Your task to perform on an android device: Go to Yahoo.com Image 0: 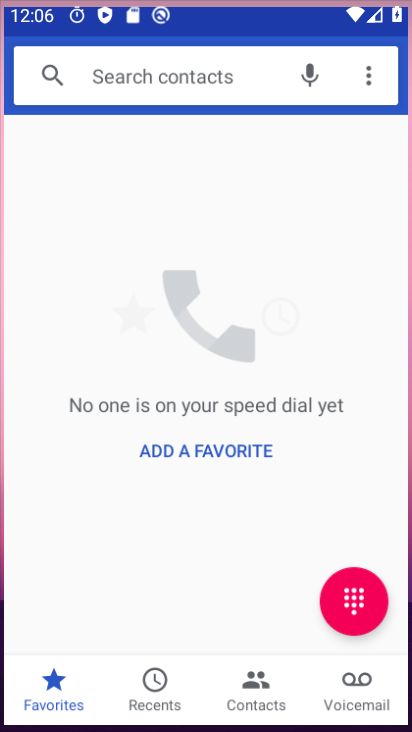
Step 0: press back button
Your task to perform on an android device: Go to Yahoo.com Image 1: 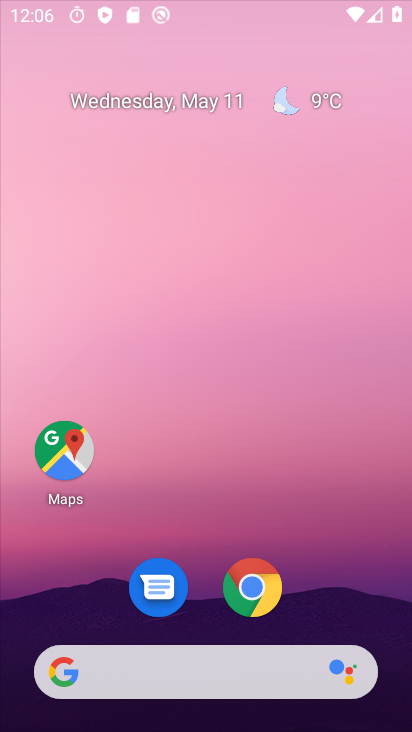
Step 1: press back button
Your task to perform on an android device: Go to Yahoo.com Image 2: 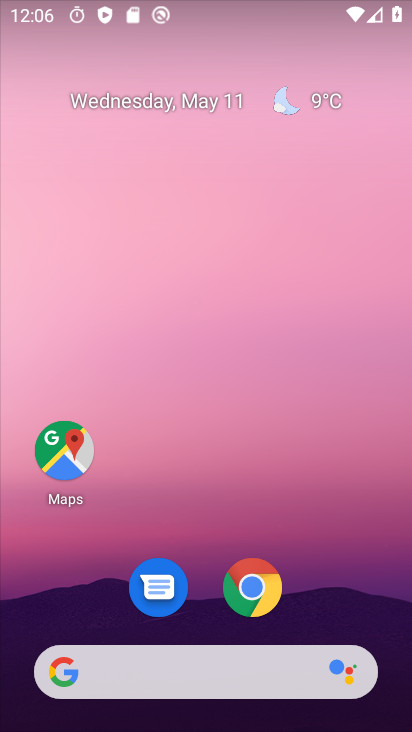
Step 2: drag from (344, 459) to (227, 90)
Your task to perform on an android device: Go to Yahoo.com Image 3: 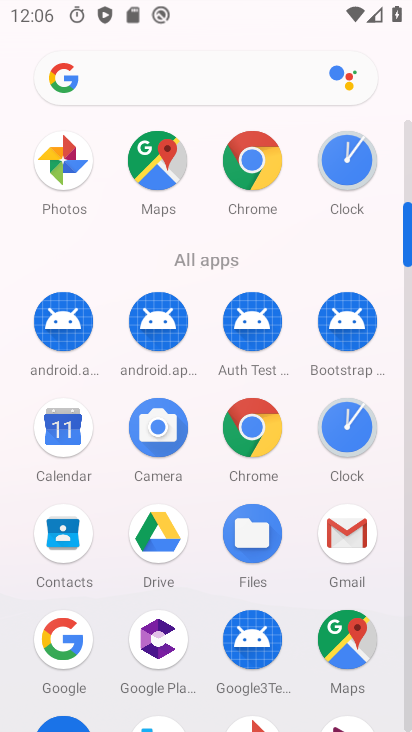
Step 3: click (236, 167)
Your task to perform on an android device: Go to Yahoo.com Image 4: 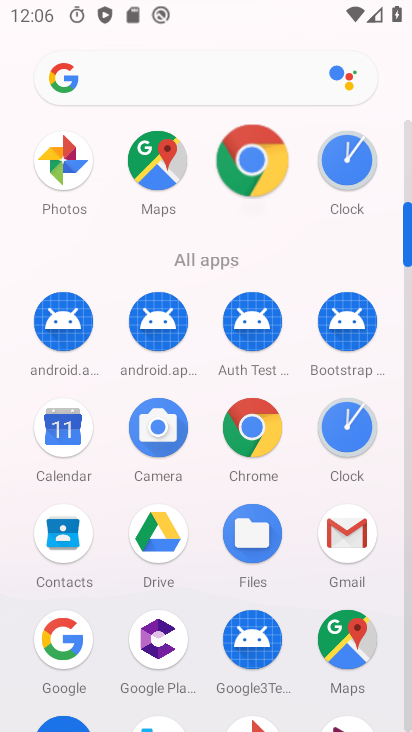
Step 4: click (247, 156)
Your task to perform on an android device: Go to Yahoo.com Image 5: 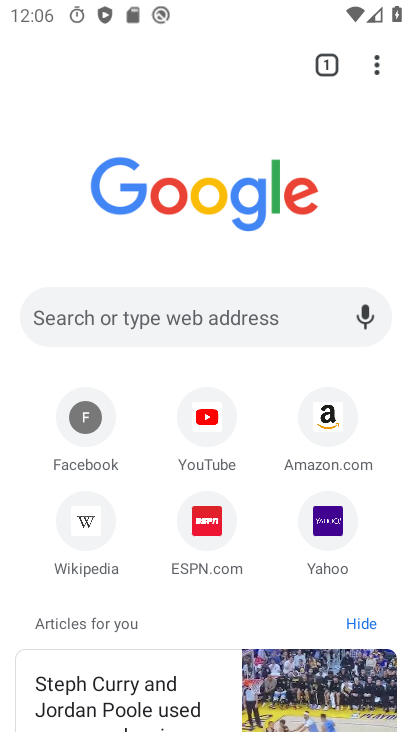
Step 5: click (93, 321)
Your task to perform on an android device: Go to Yahoo.com Image 6: 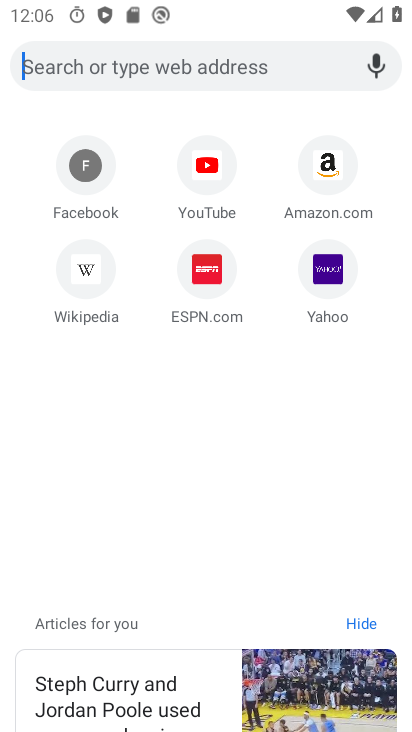
Step 6: click (99, 308)
Your task to perform on an android device: Go to Yahoo.com Image 7: 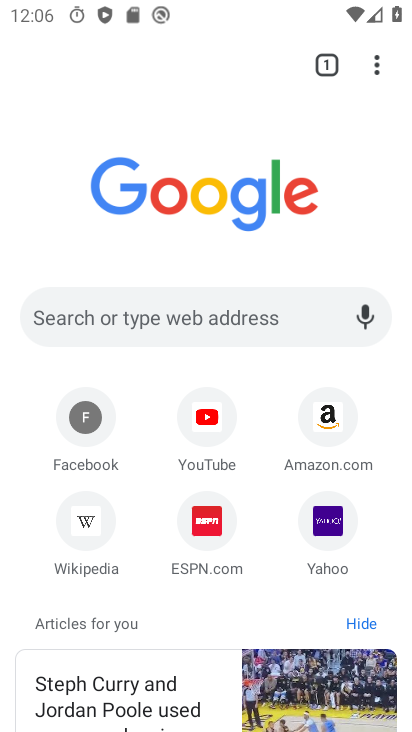
Step 7: click (329, 516)
Your task to perform on an android device: Go to Yahoo.com Image 8: 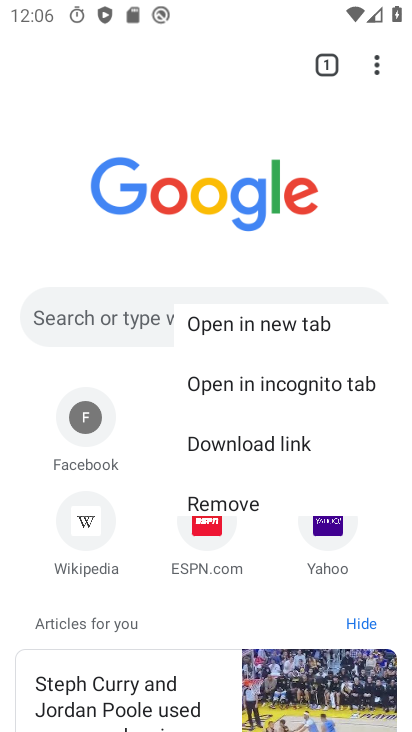
Step 8: click (324, 506)
Your task to perform on an android device: Go to Yahoo.com Image 9: 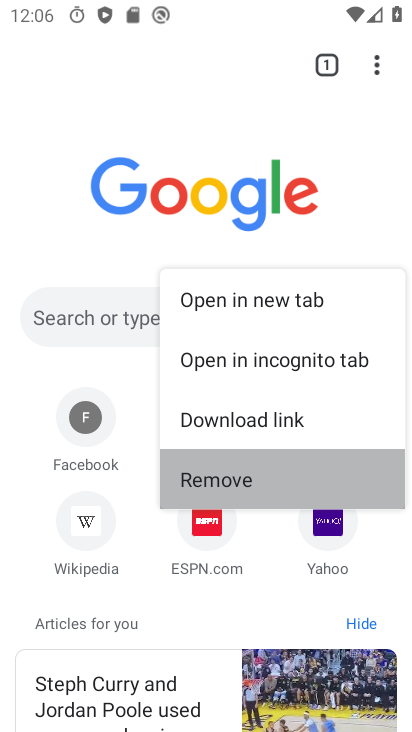
Step 9: click (331, 525)
Your task to perform on an android device: Go to Yahoo.com Image 10: 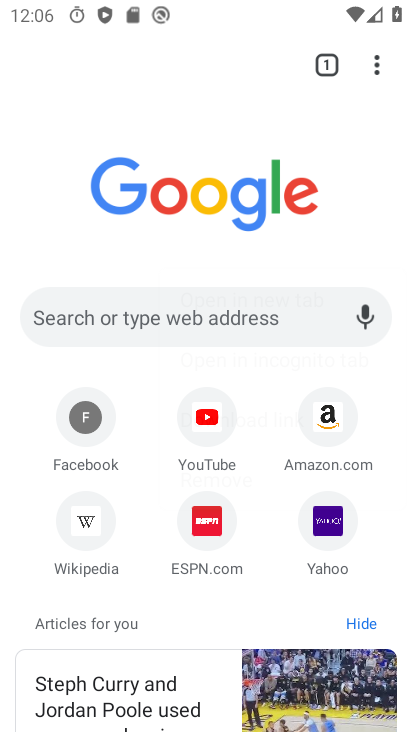
Step 10: click (329, 520)
Your task to perform on an android device: Go to Yahoo.com Image 11: 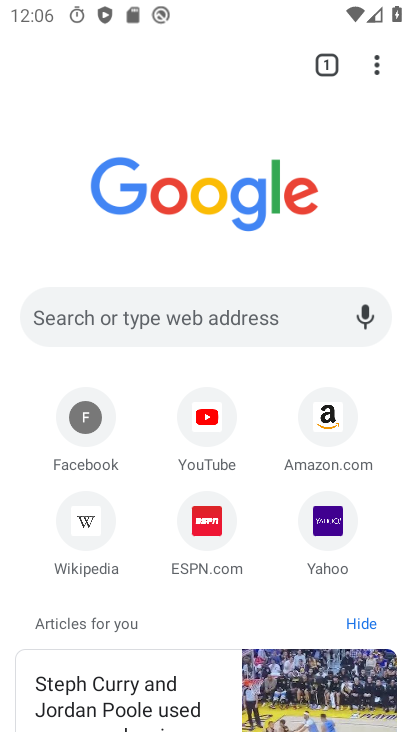
Step 11: click (328, 519)
Your task to perform on an android device: Go to Yahoo.com Image 12: 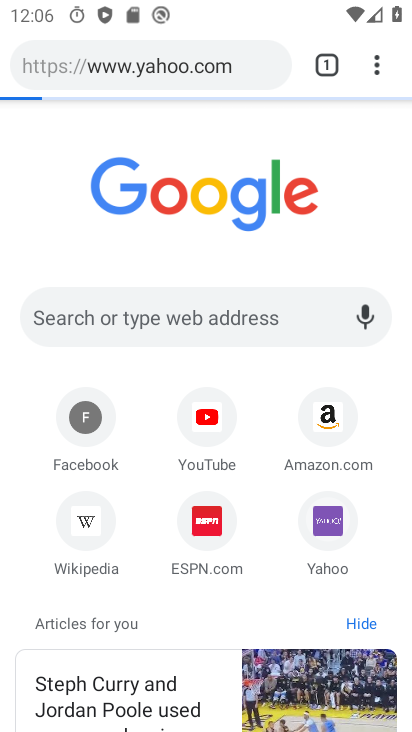
Step 12: click (327, 518)
Your task to perform on an android device: Go to Yahoo.com Image 13: 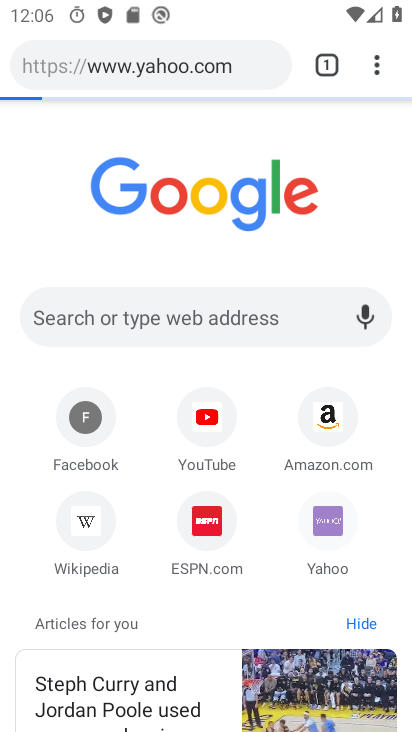
Step 13: click (327, 518)
Your task to perform on an android device: Go to Yahoo.com Image 14: 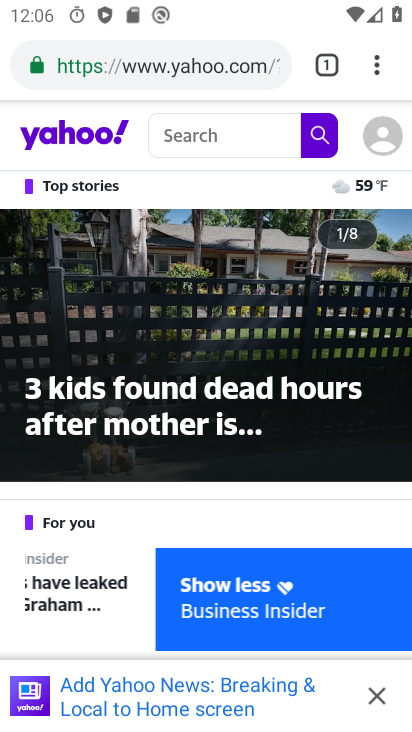
Step 14: task complete